Your task to perform on an android device: turn on location history Image 0: 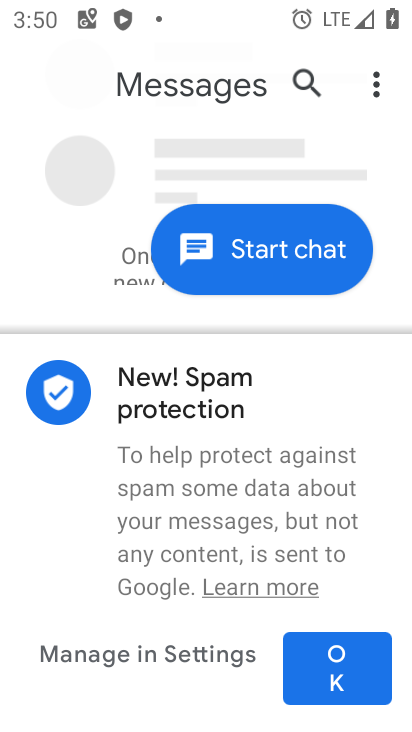
Step 0: press home button
Your task to perform on an android device: turn on location history Image 1: 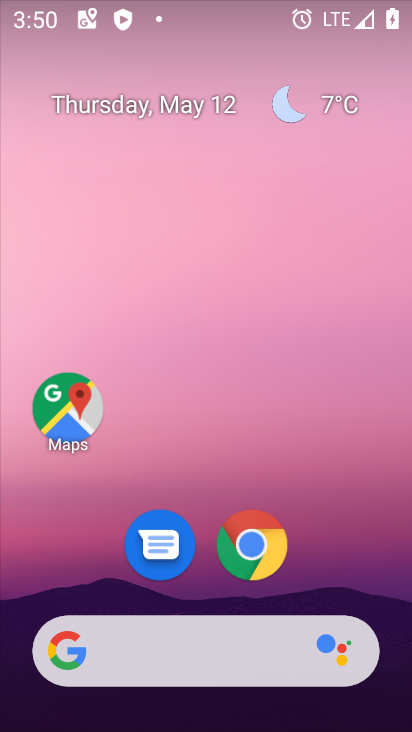
Step 1: click (58, 403)
Your task to perform on an android device: turn on location history Image 2: 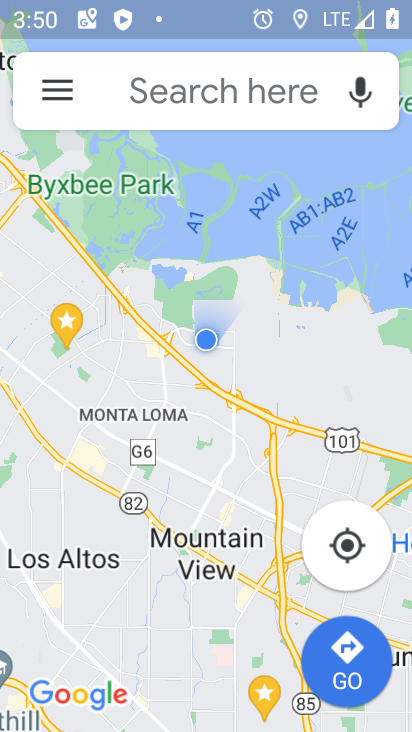
Step 2: click (60, 86)
Your task to perform on an android device: turn on location history Image 3: 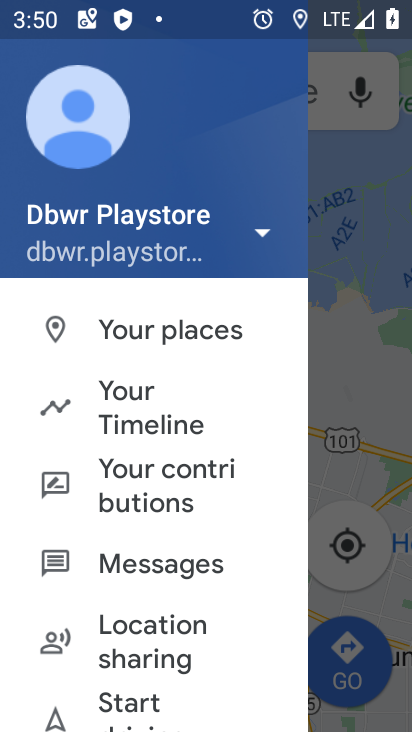
Step 3: drag from (254, 650) to (249, 49)
Your task to perform on an android device: turn on location history Image 4: 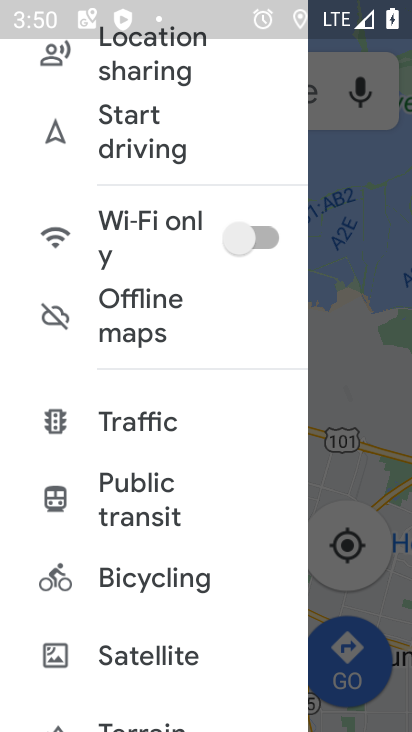
Step 4: drag from (211, 655) to (226, 72)
Your task to perform on an android device: turn on location history Image 5: 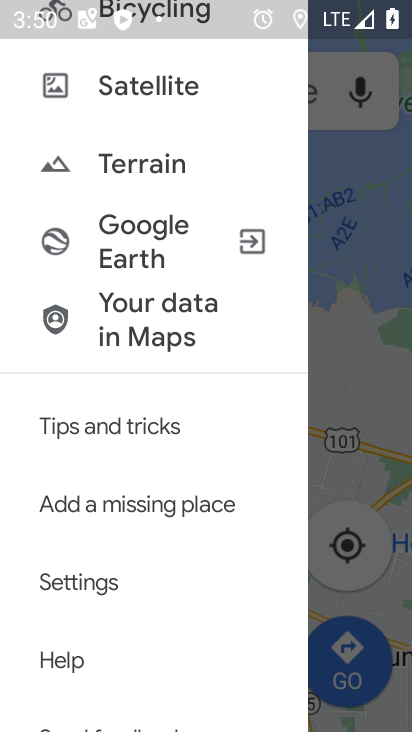
Step 5: click (71, 571)
Your task to perform on an android device: turn on location history Image 6: 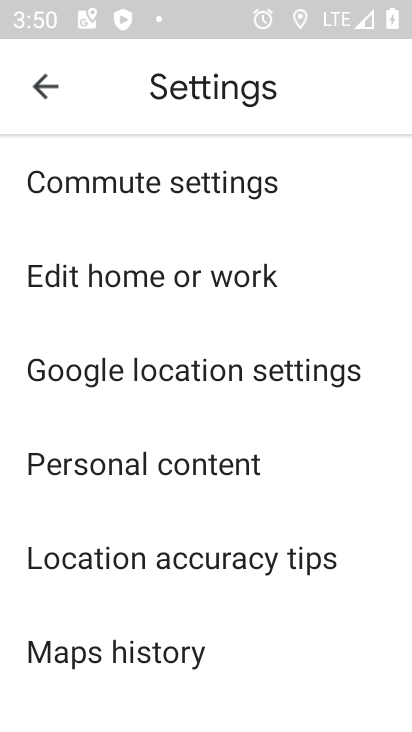
Step 6: click (116, 447)
Your task to perform on an android device: turn on location history Image 7: 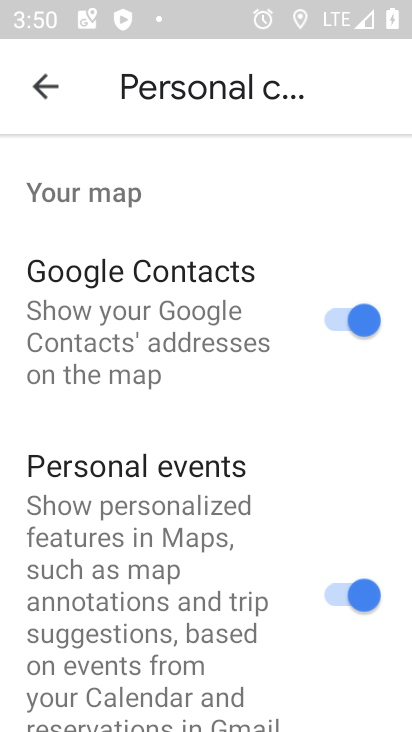
Step 7: task complete